Your task to perform on an android device: What's the US dollar exchange rate against the Australian Dollar? Image 0: 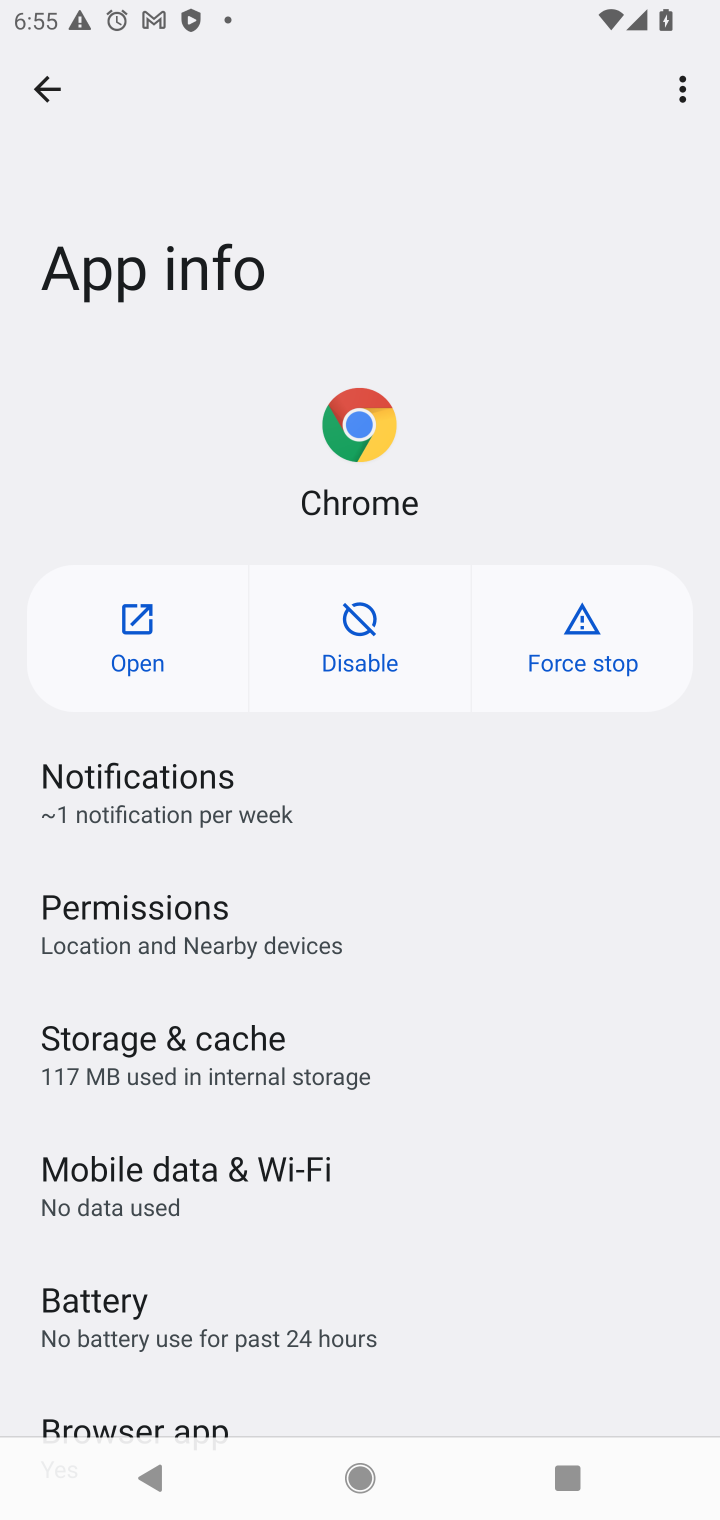
Step 0: press home button
Your task to perform on an android device: What's the US dollar exchange rate against the Australian Dollar? Image 1: 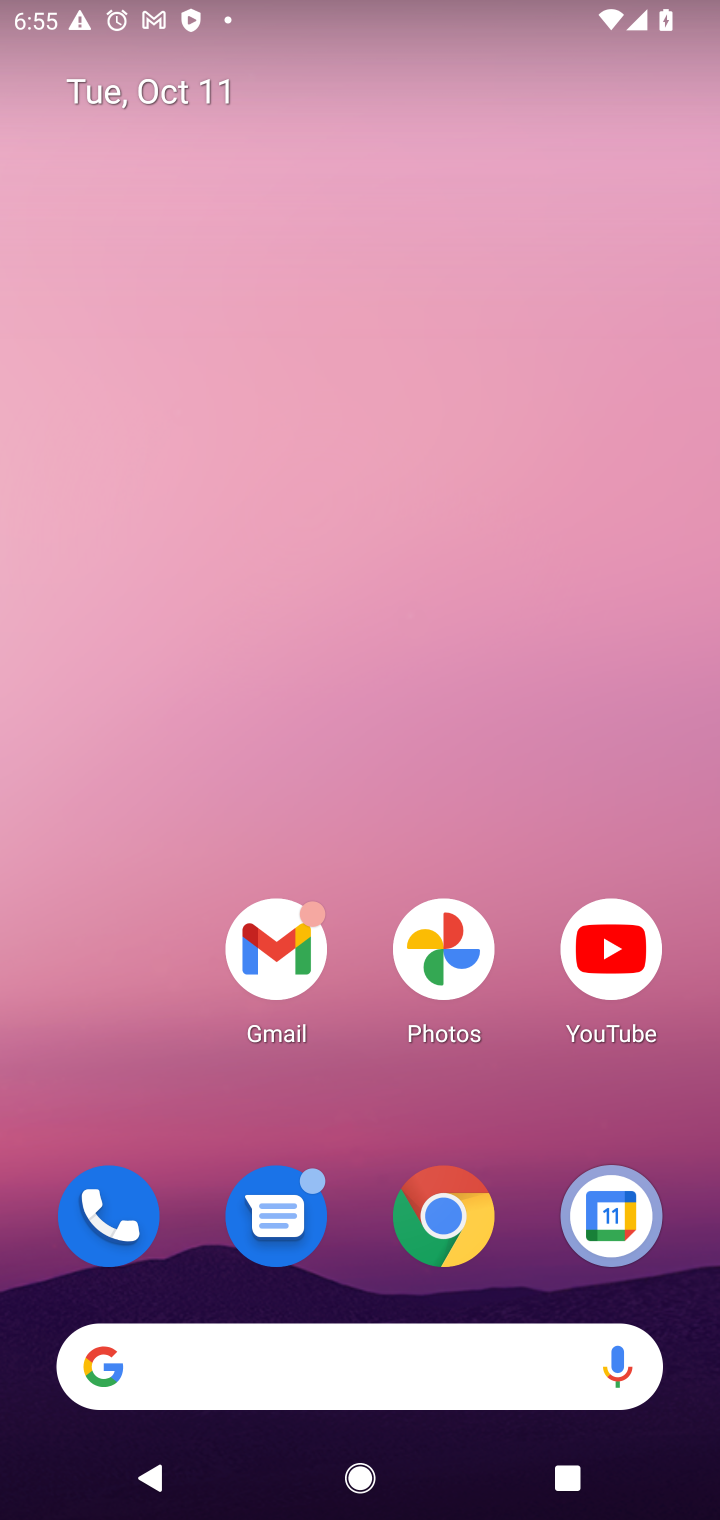
Step 1: click (474, 1224)
Your task to perform on an android device: What's the US dollar exchange rate against the Australian Dollar? Image 2: 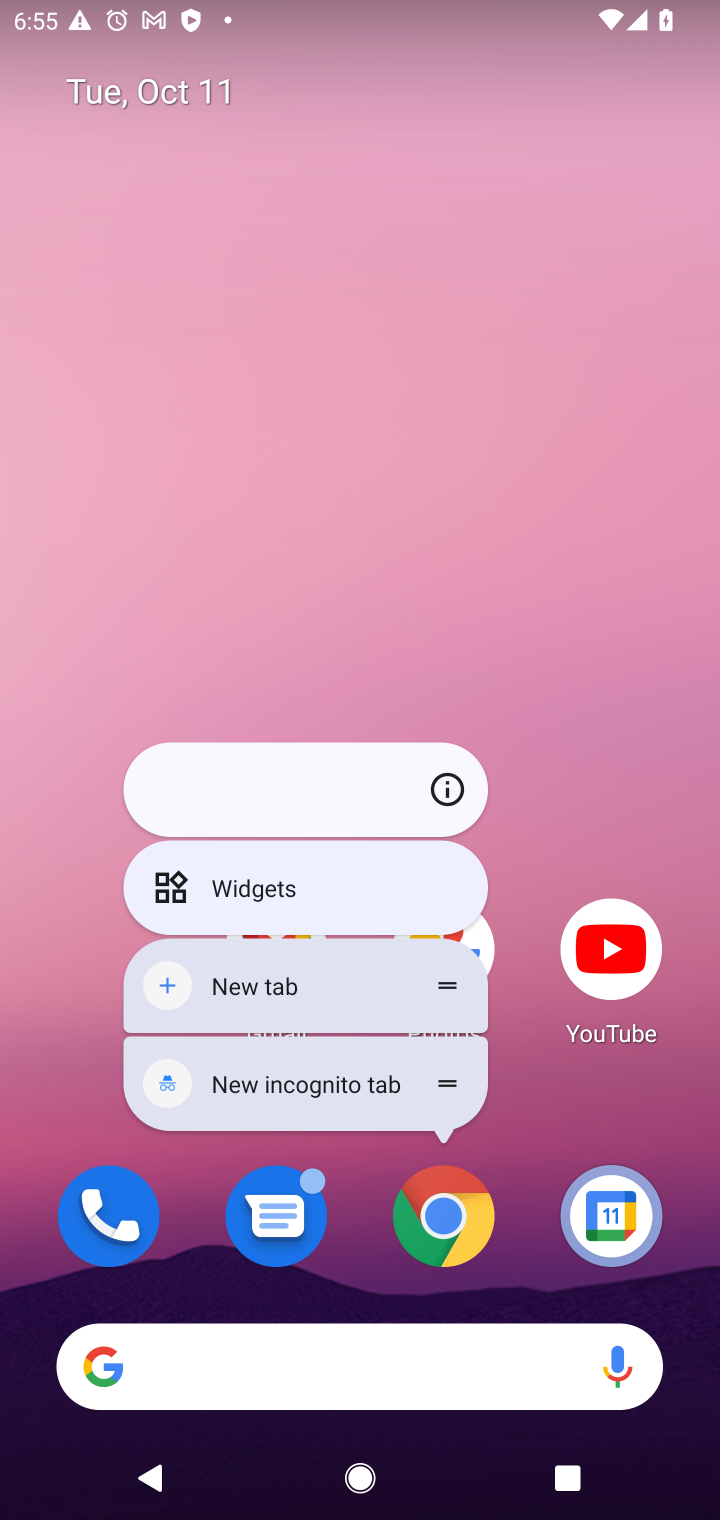
Step 2: click (474, 1224)
Your task to perform on an android device: What's the US dollar exchange rate against the Australian Dollar? Image 3: 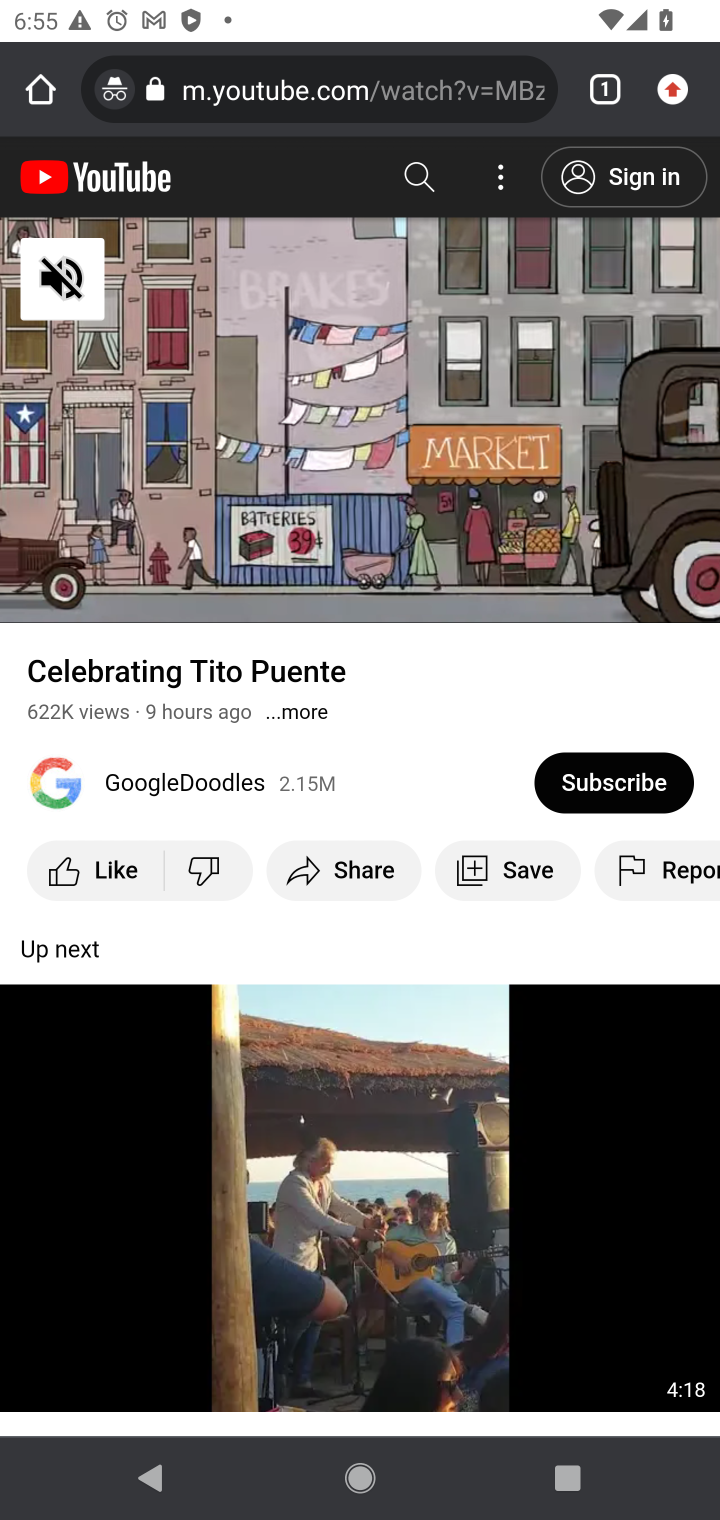
Step 3: click (318, 88)
Your task to perform on an android device: What's the US dollar exchange rate against the Australian Dollar? Image 4: 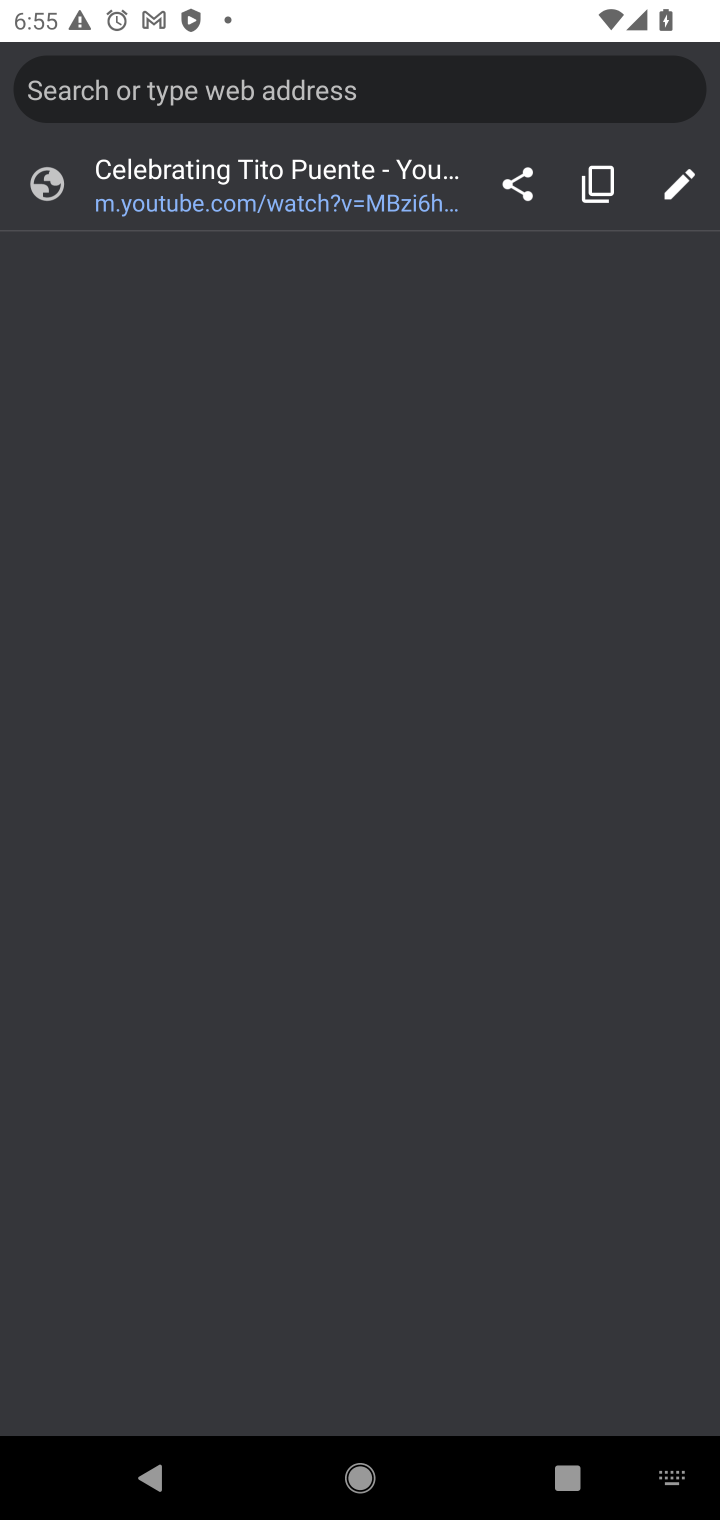
Step 4: type "What's the US dollar exchange rate against the Australian Dollar?"
Your task to perform on an android device: What's the US dollar exchange rate against the Australian Dollar? Image 5: 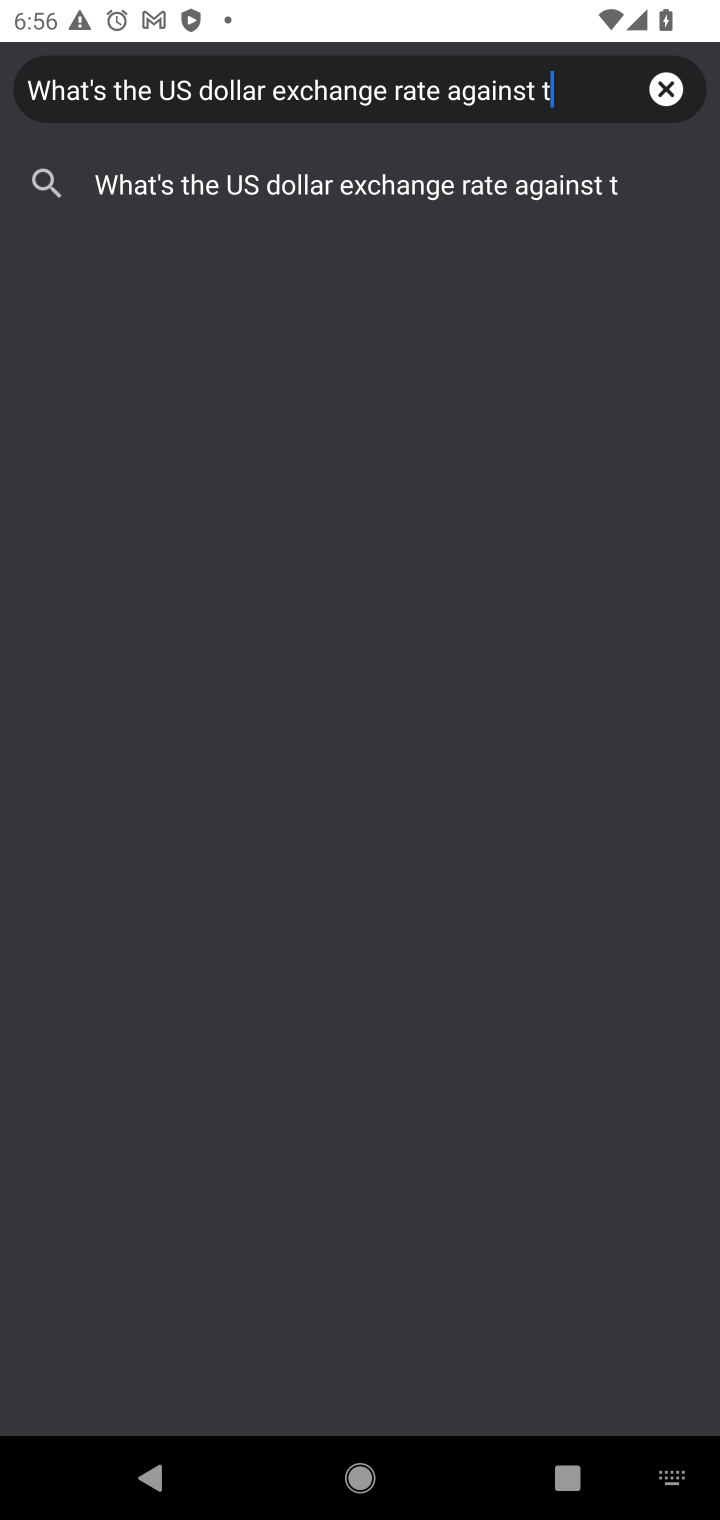
Step 5: press enter
Your task to perform on an android device: What's the US dollar exchange rate against the Australian Dollar? Image 6: 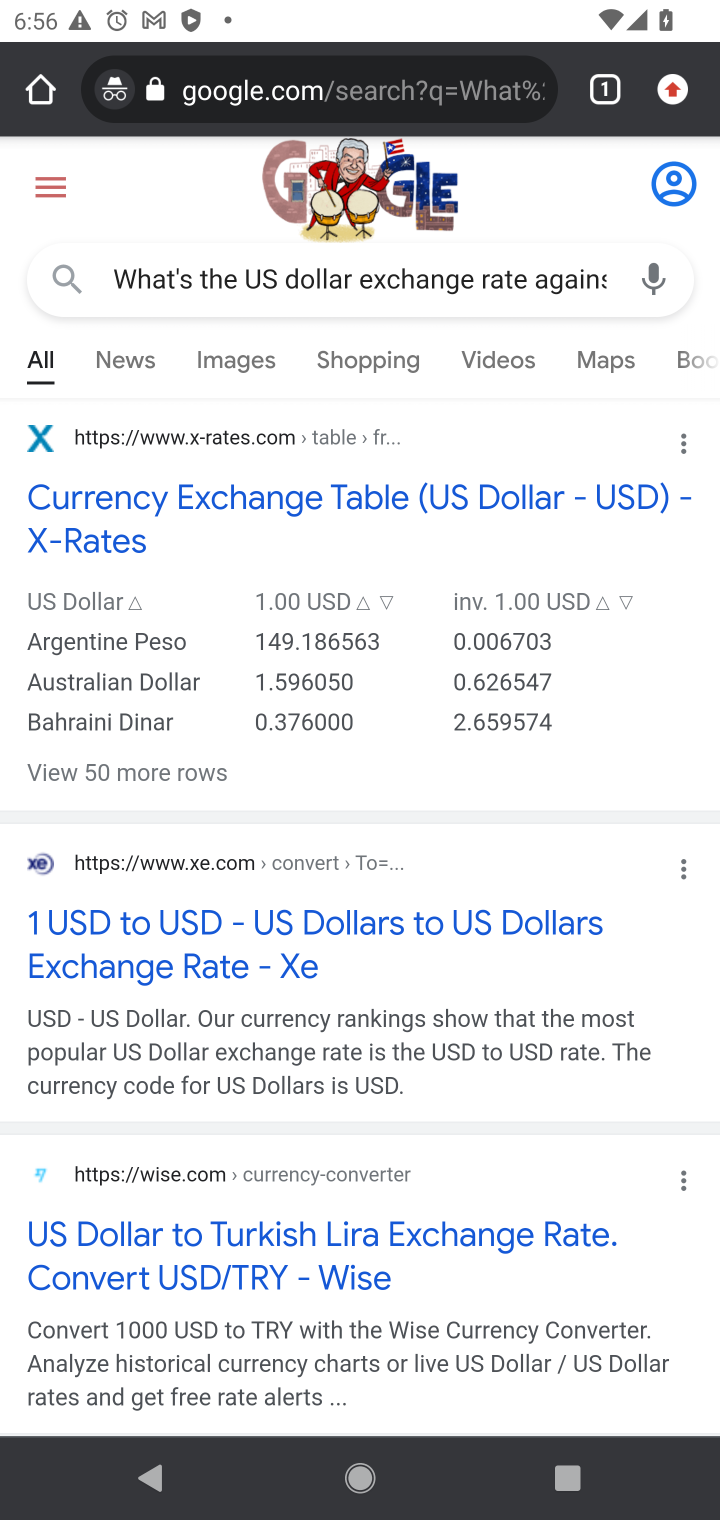
Step 6: task complete